Your task to perform on an android device: turn on translation in the chrome app Image 0: 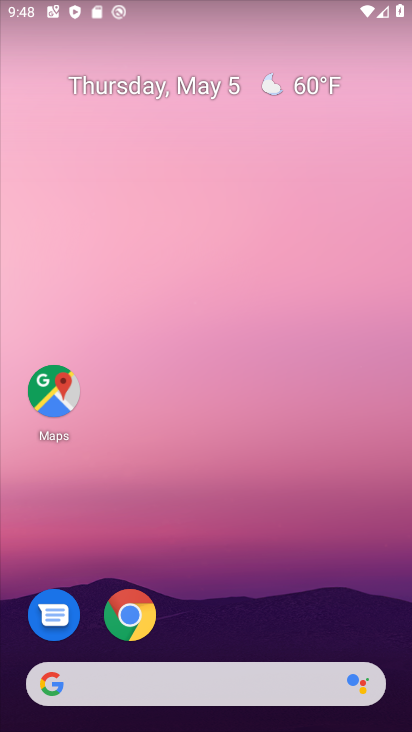
Step 0: click (135, 617)
Your task to perform on an android device: turn on translation in the chrome app Image 1: 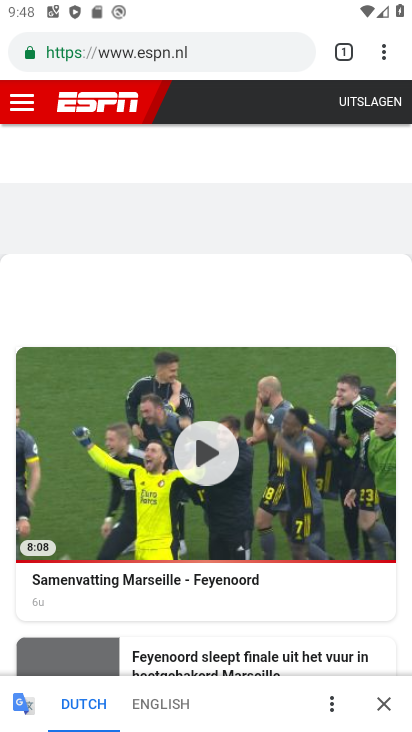
Step 1: click (383, 50)
Your task to perform on an android device: turn on translation in the chrome app Image 2: 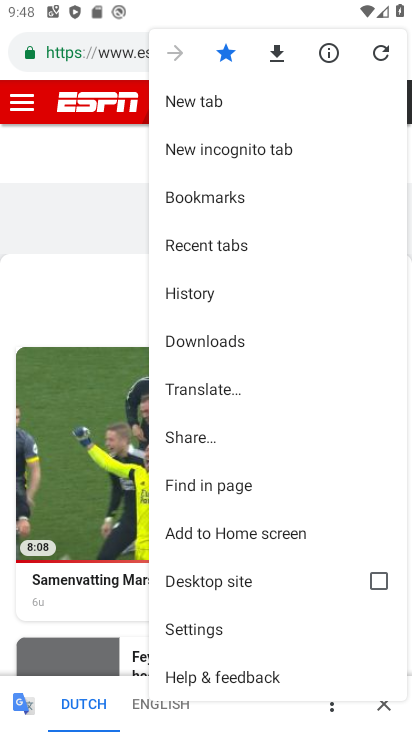
Step 2: click (233, 638)
Your task to perform on an android device: turn on translation in the chrome app Image 3: 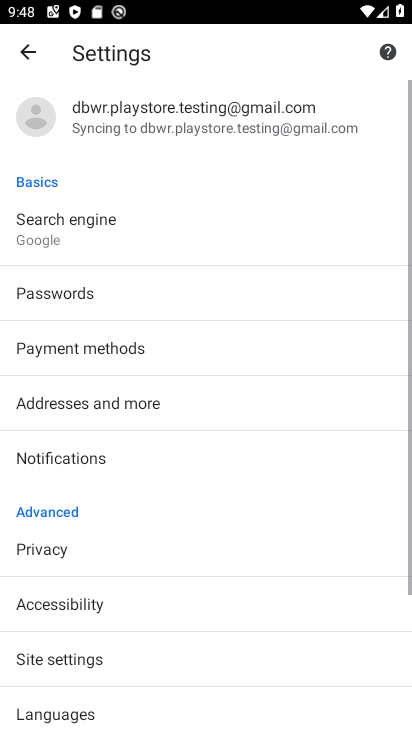
Step 3: drag from (200, 634) to (234, 339)
Your task to perform on an android device: turn on translation in the chrome app Image 4: 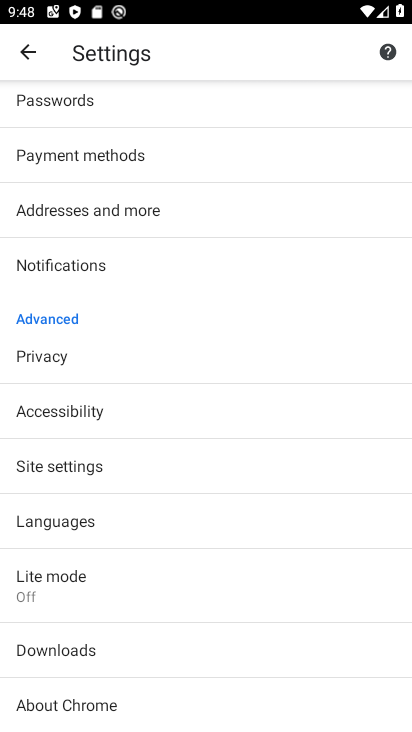
Step 4: click (71, 516)
Your task to perform on an android device: turn on translation in the chrome app Image 5: 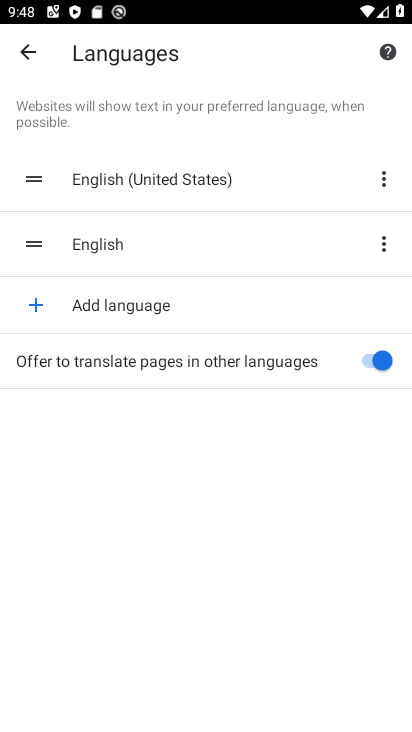
Step 5: task complete